Your task to perform on an android device: install app "Grab" Image 0: 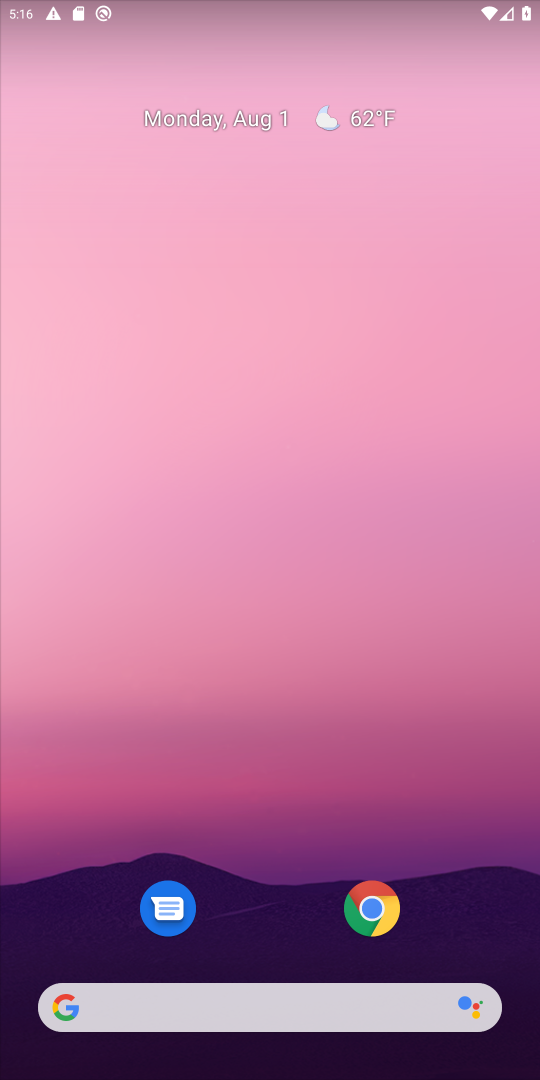
Step 0: drag from (271, 826) to (350, 234)
Your task to perform on an android device: install app "Grab" Image 1: 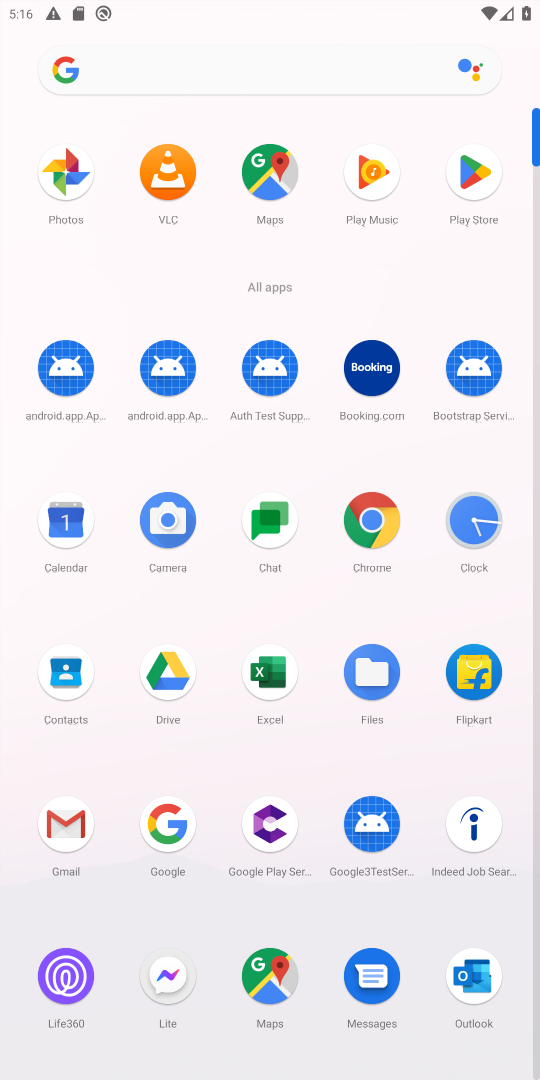
Step 1: click (458, 164)
Your task to perform on an android device: install app "Grab" Image 2: 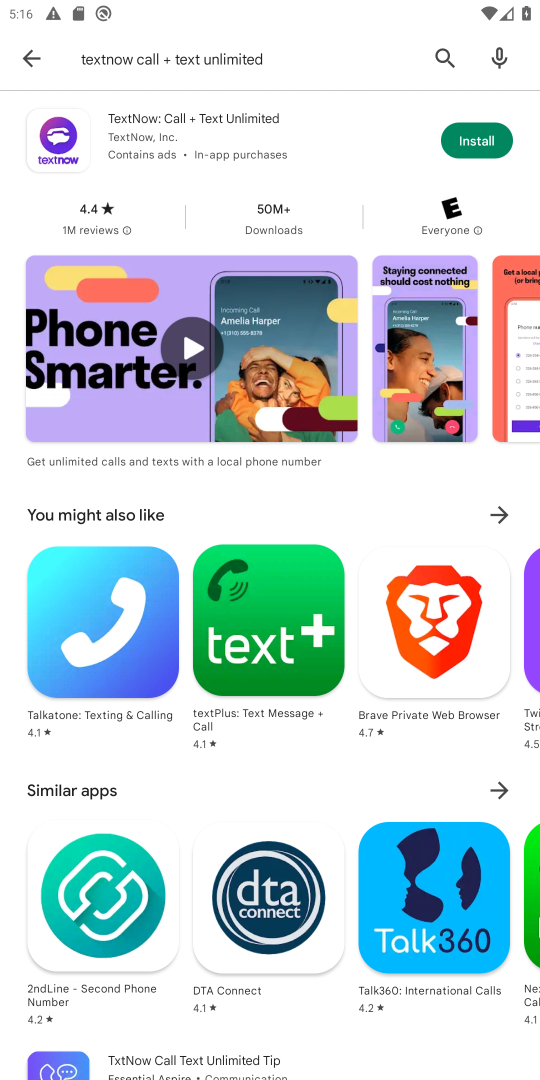
Step 2: click (34, 54)
Your task to perform on an android device: install app "Grab" Image 3: 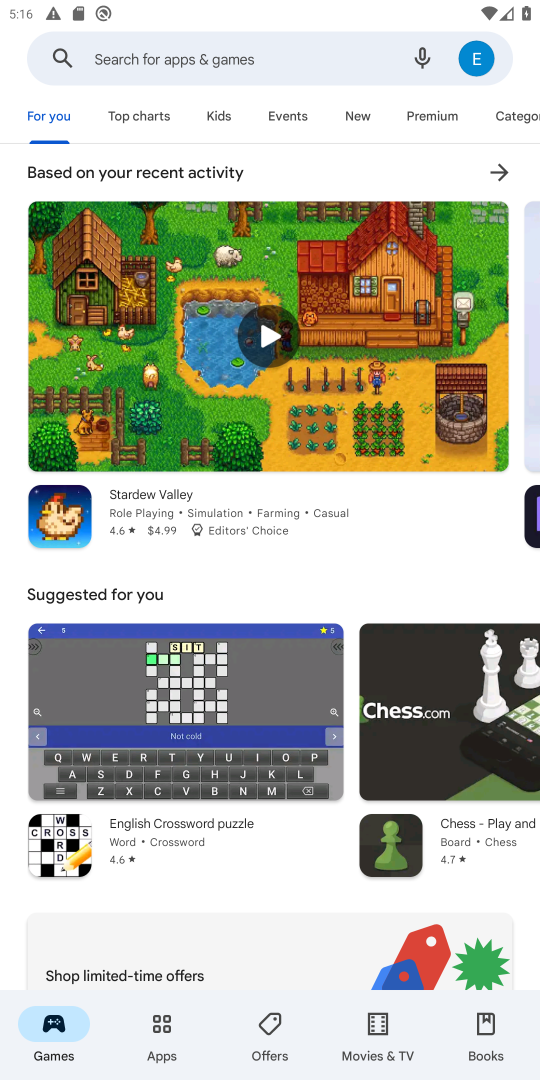
Step 3: click (269, 55)
Your task to perform on an android device: install app "Grab" Image 4: 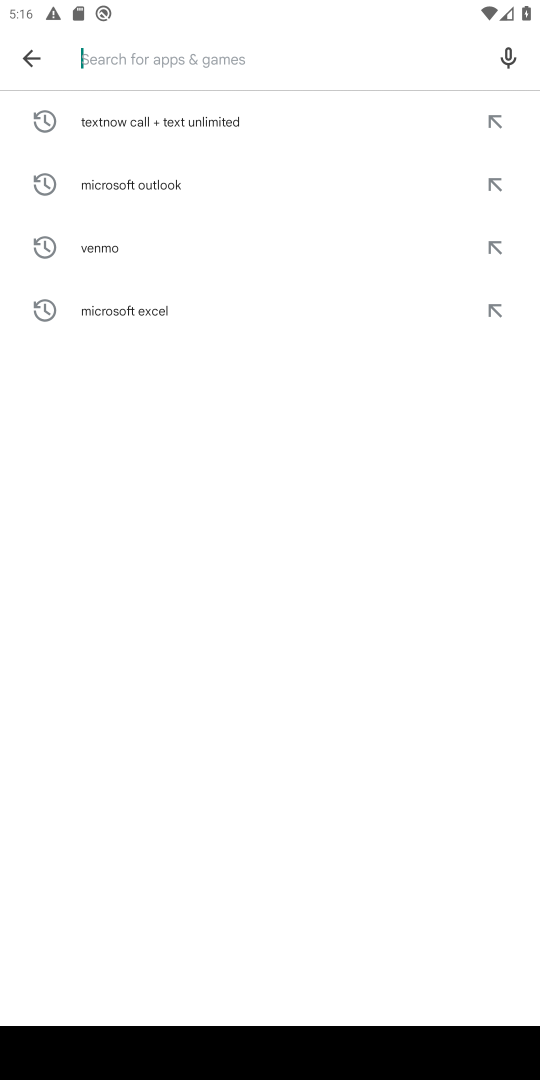
Step 4: type "Grab"
Your task to perform on an android device: install app "Grab" Image 5: 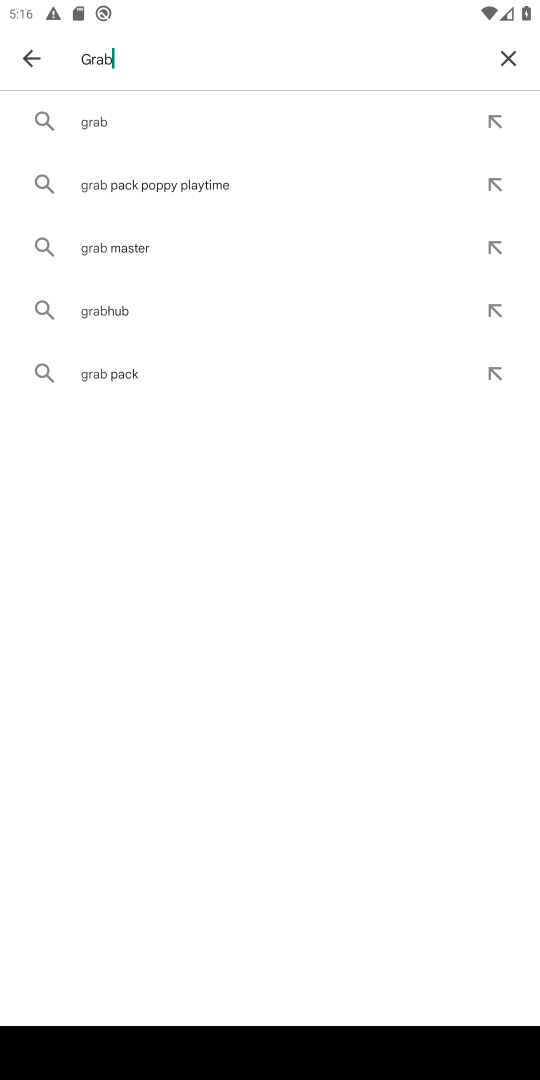
Step 5: click (84, 126)
Your task to perform on an android device: install app "Grab" Image 6: 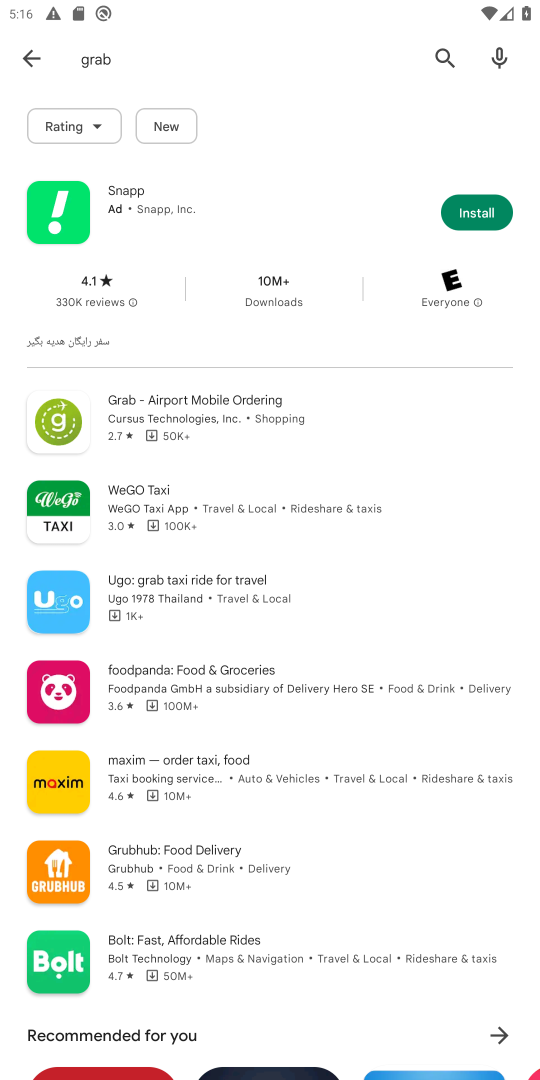
Step 6: click (250, 402)
Your task to perform on an android device: install app "Grab" Image 7: 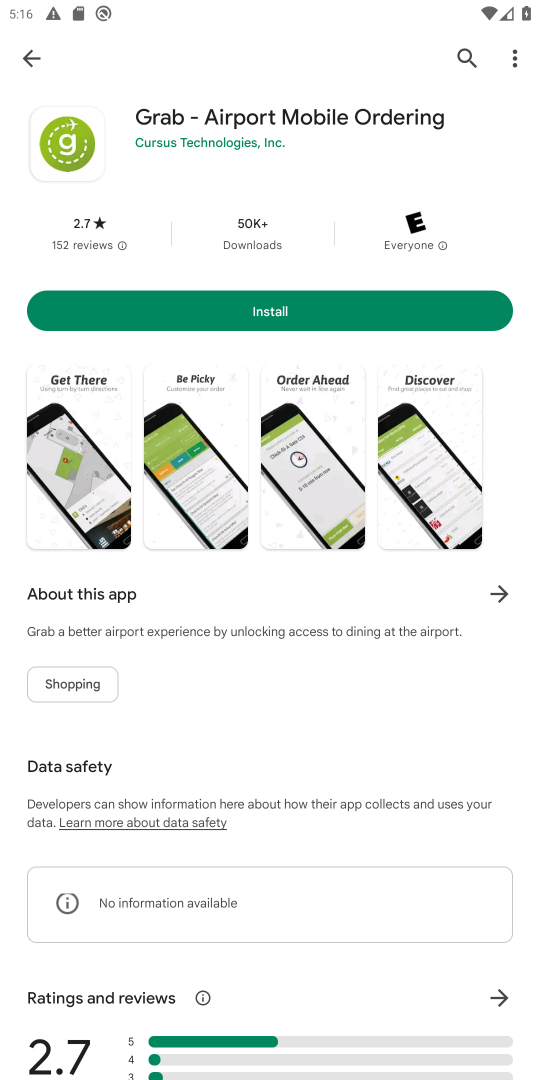
Step 7: click (289, 311)
Your task to perform on an android device: install app "Grab" Image 8: 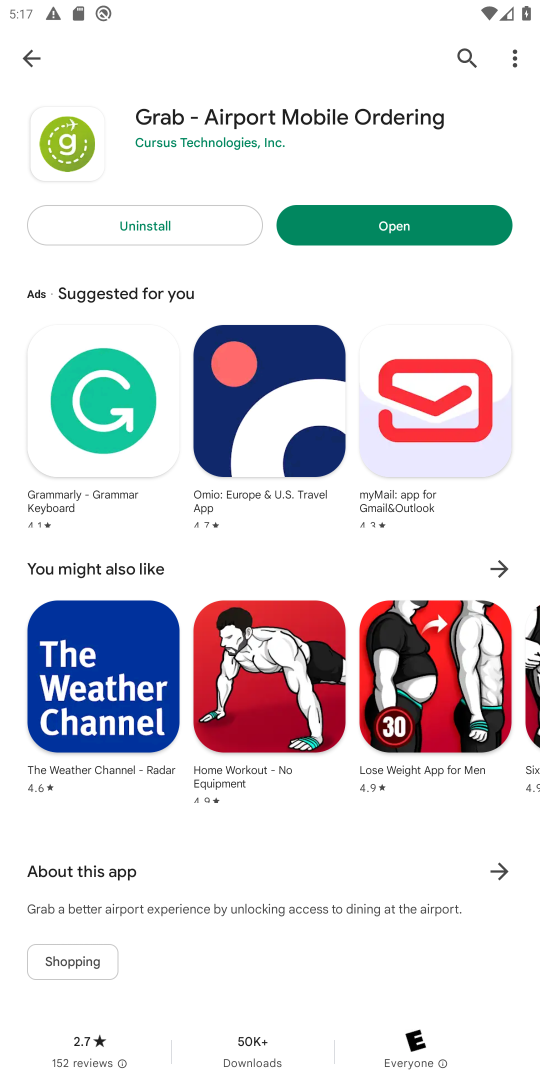
Step 8: task complete